Your task to perform on an android device: empty trash in the gmail app Image 0: 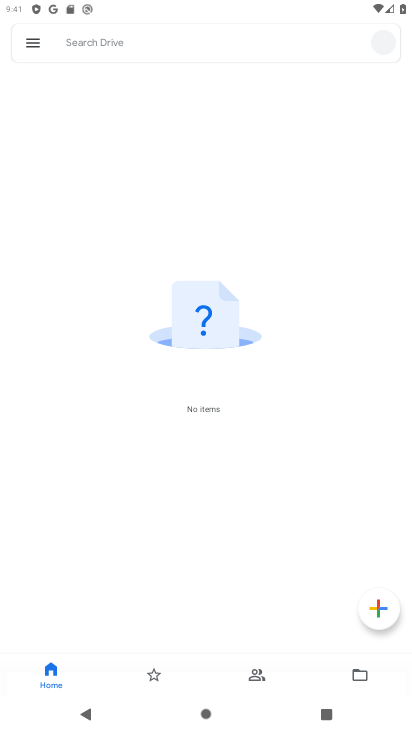
Step 0: press home button
Your task to perform on an android device: empty trash in the gmail app Image 1: 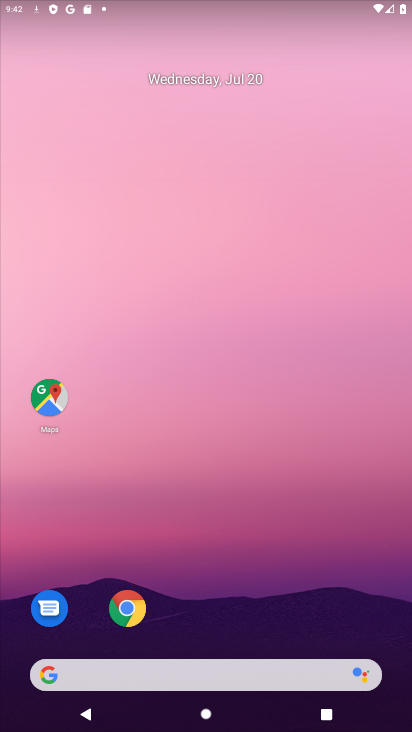
Step 1: drag from (213, 635) to (213, 33)
Your task to perform on an android device: empty trash in the gmail app Image 2: 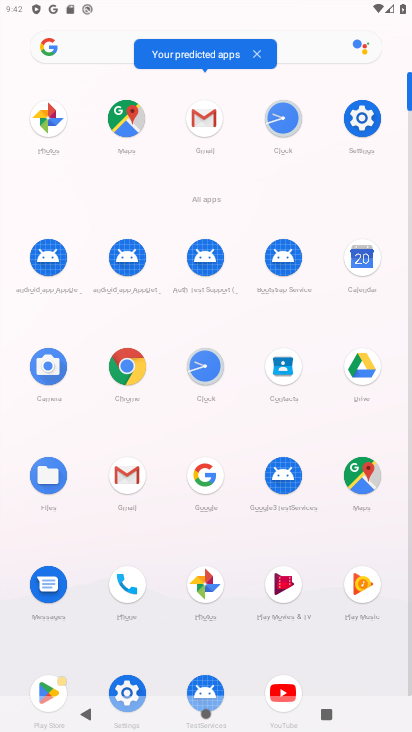
Step 2: click (203, 116)
Your task to perform on an android device: empty trash in the gmail app Image 3: 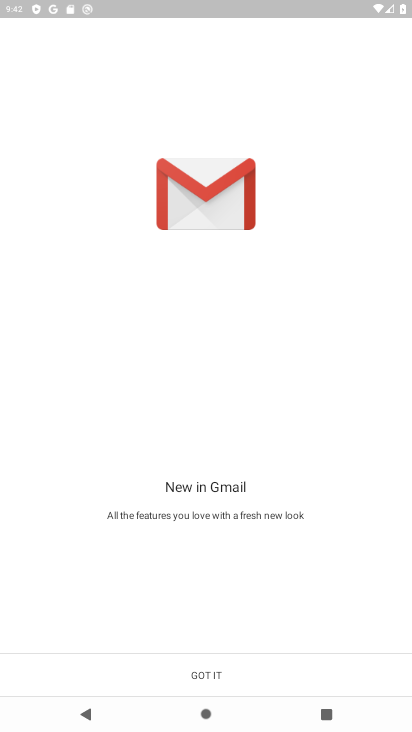
Step 3: click (213, 670)
Your task to perform on an android device: empty trash in the gmail app Image 4: 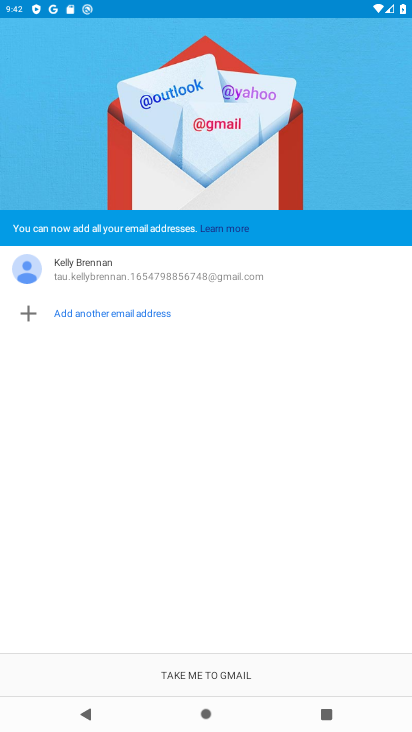
Step 4: click (208, 667)
Your task to perform on an android device: empty trash in the gmail app Image 5: 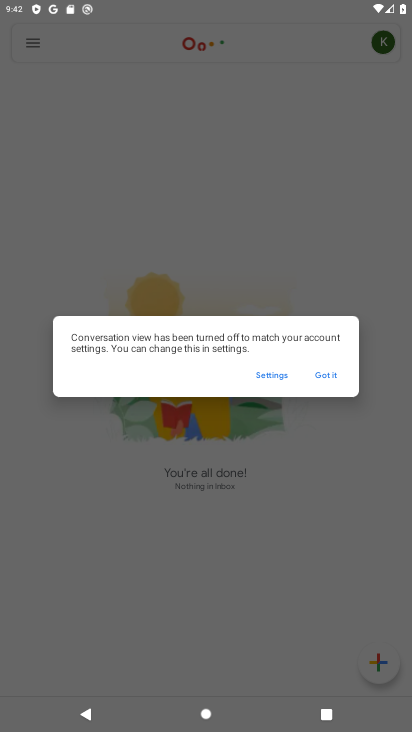
Step 5: click (327, 380)
Your task to perform on an android device: empty trash in the gmail app Image 6: 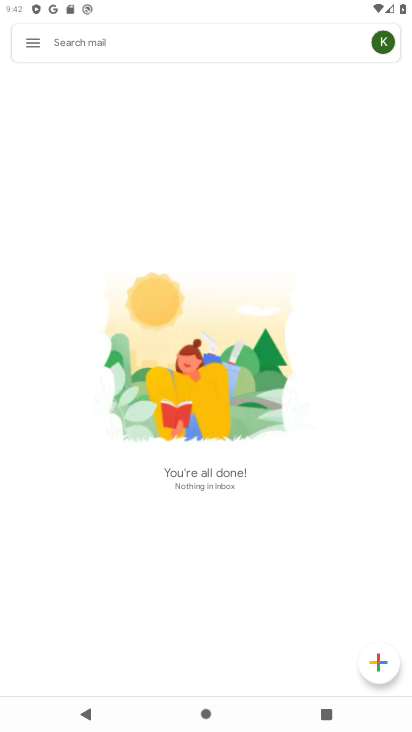
Step 6: click (32, 38)
Your task to perform on an android device: empty trash in the gmail app Image 7: 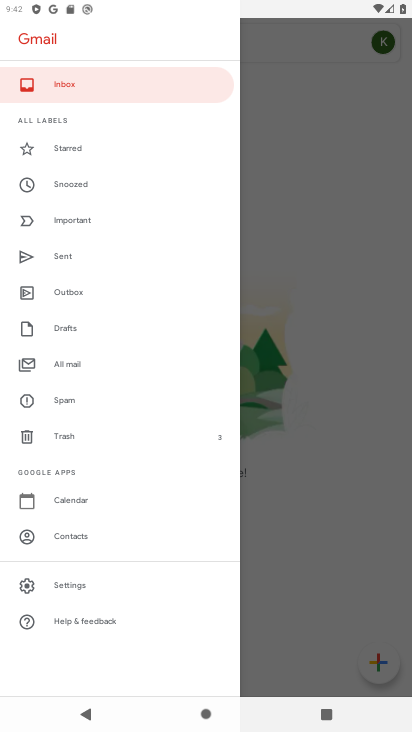
Step 7: click (66, 434)
Your task to perform on an android device: empty trash in the gmail app Image 8: 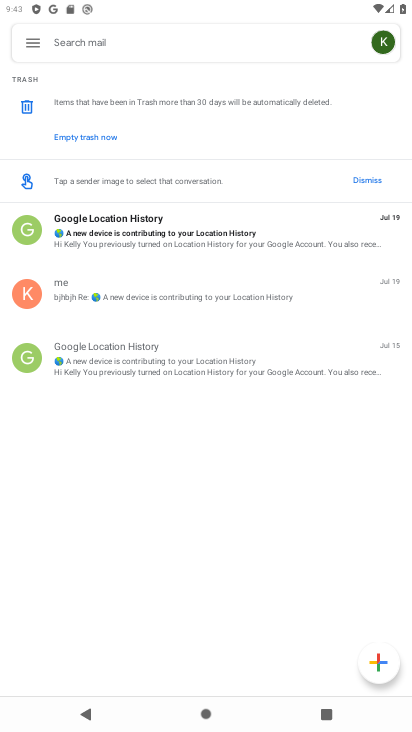
Step 8: click (76, 138)
Your task to perform on an android device: empty trash in the gmail app Image 9: 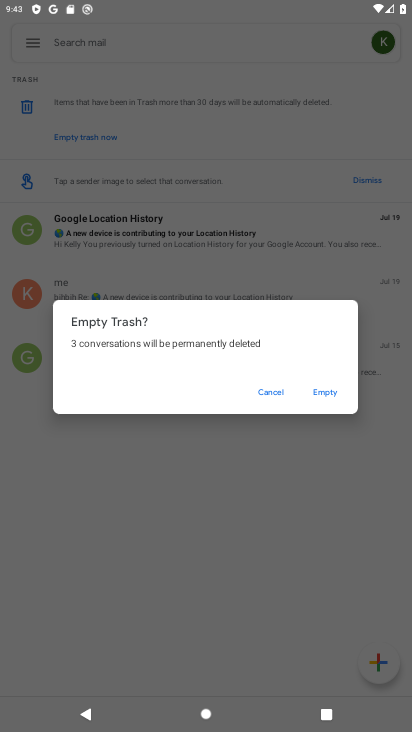
Step 9: click (329, 382)
Your task to perform on an android device: empty trash in the gmail app Image 10: 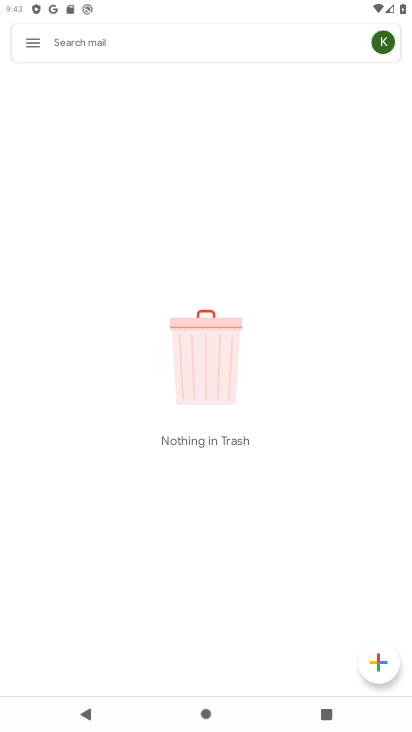
Step 10: task complete